Your task to perform on an android device: Open notification settings Image 0: 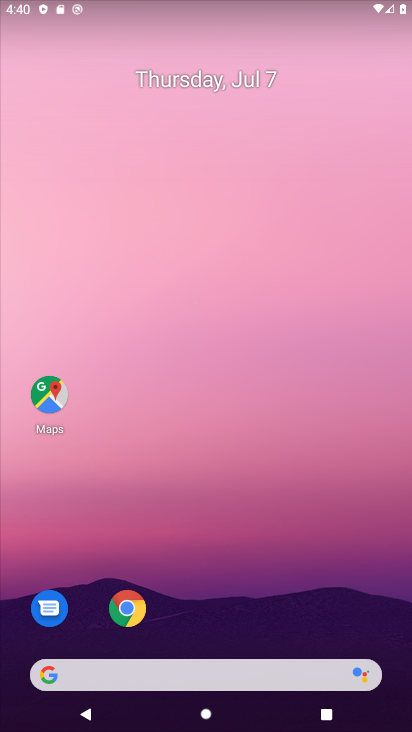
Step 0: press home button
Your task to perform on an android device: Open notification settings Image 1: 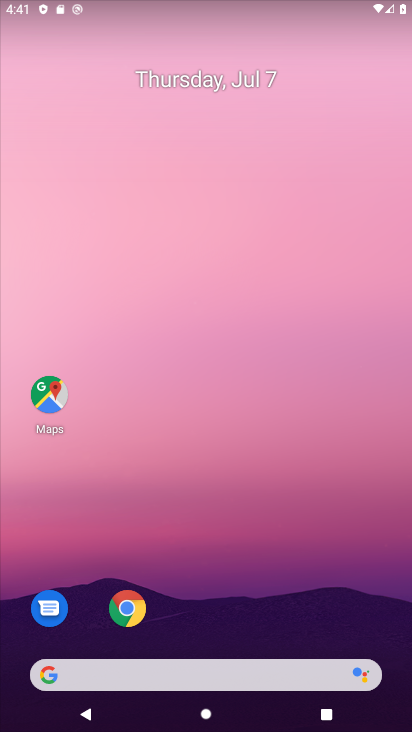
Step 1: drag from (229, 640) to (283, 37)
Your task to perform on an android device: Open notification settings Image 2: 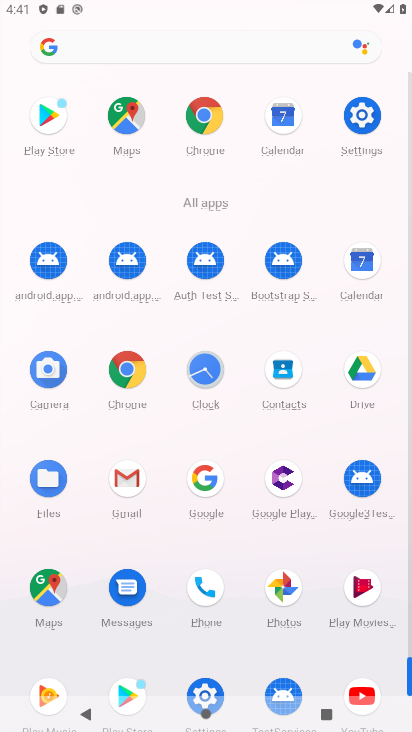
Step 2: click (360, 107)
Your task to perform on an android device: Open notification settings Image 3: 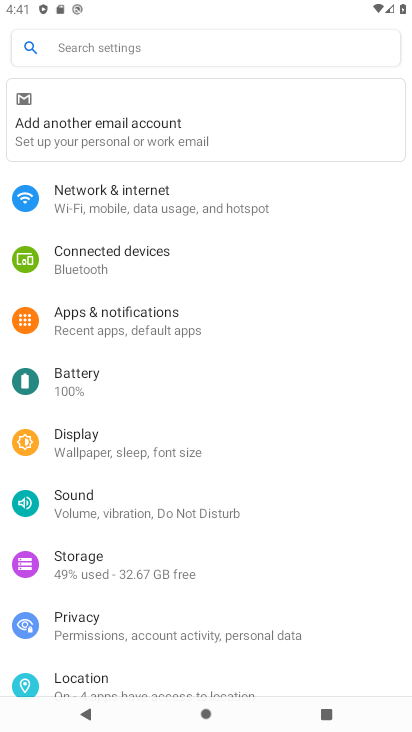
Step 3: click (149, 326)
Your task to perform on an android device: Open notification settings Image 4: 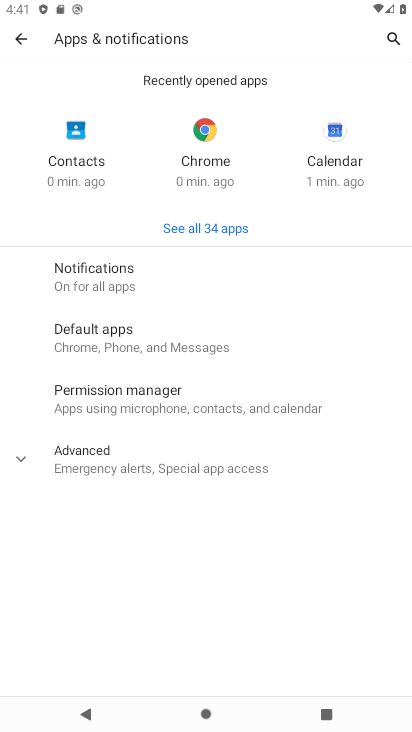
Step 4: click (151, 273)
Your task to perform on an android device: Open notification settings Image 5: 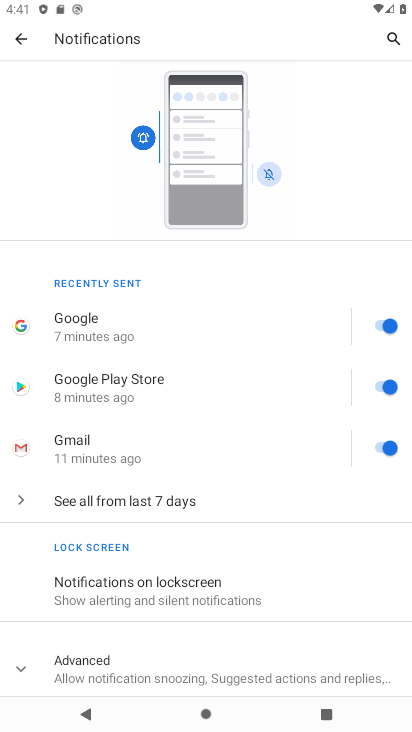
Step 5: drag from (178, 646) to (175, 411)
Your task to perform on an android device: Open notification settings Image 6: 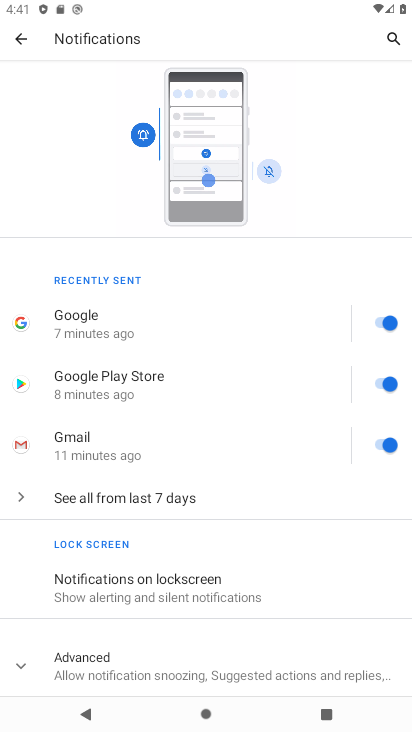
Step 6: click (45, 663)
Your task to perform on an android device: Open notification settings Image 7: 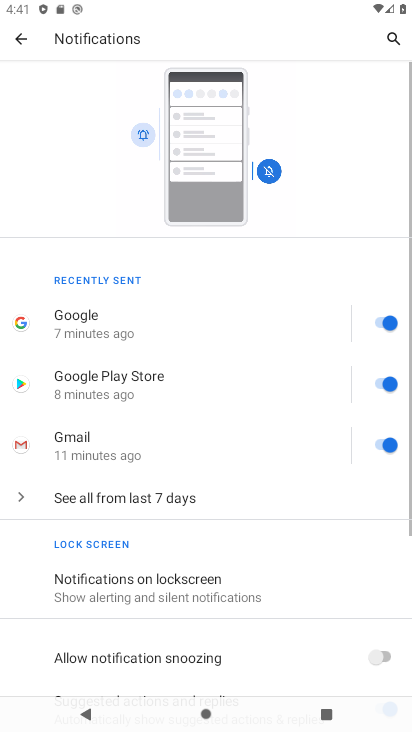
Step 7: task complete